Your task to perform on an android device: set default search engine in the chrome app Image 0: 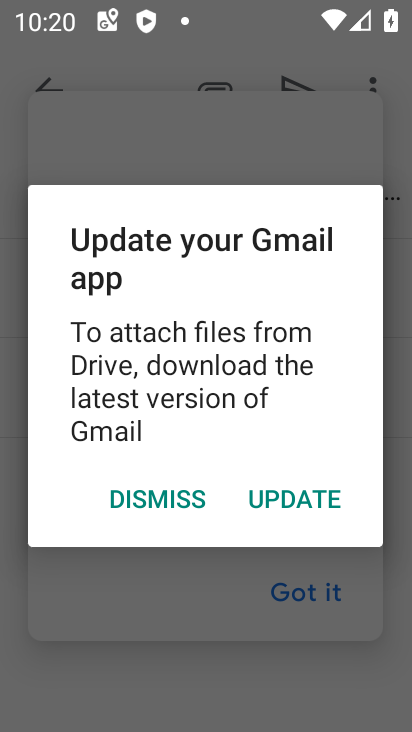
Step 0: press home button
Your task to perform on an android device: set default search engine in the chrome app Image 1: 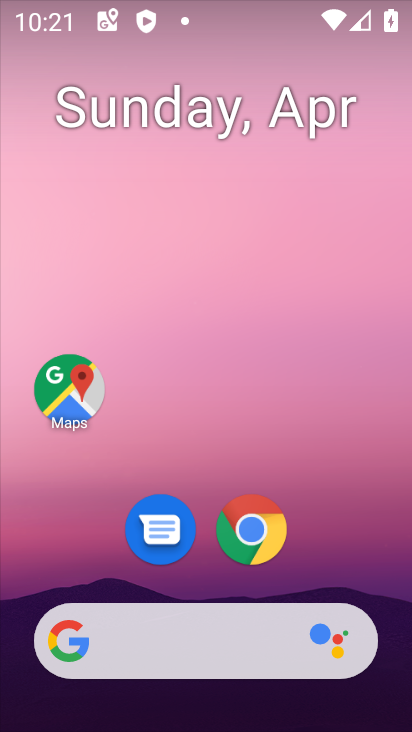
Step 1: click (226, 536)
Your task to perform on an android device: set default search engine in the chrome app Image 2: 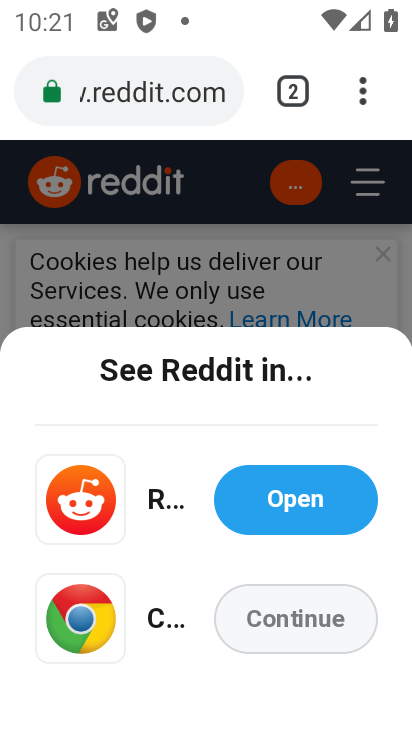
Step 2: click (362, 99)
Your task to perform on an android device: set default search engine in the chrome app Image 3: 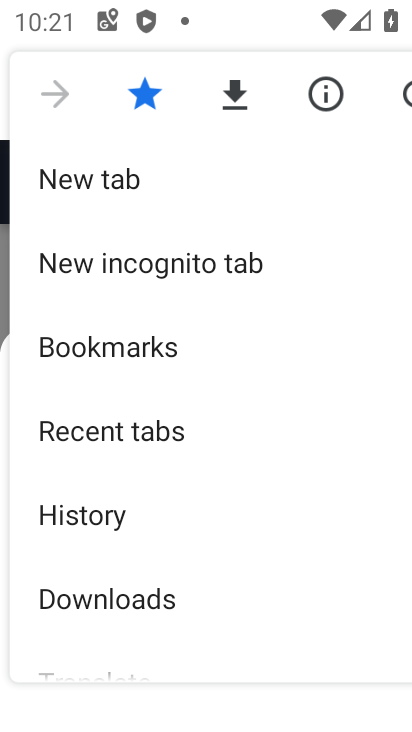
Step 3: drag from (157, 590) to (246, 211)
Your task to perform on an android device: set default search engine in the chrome app Image 4: 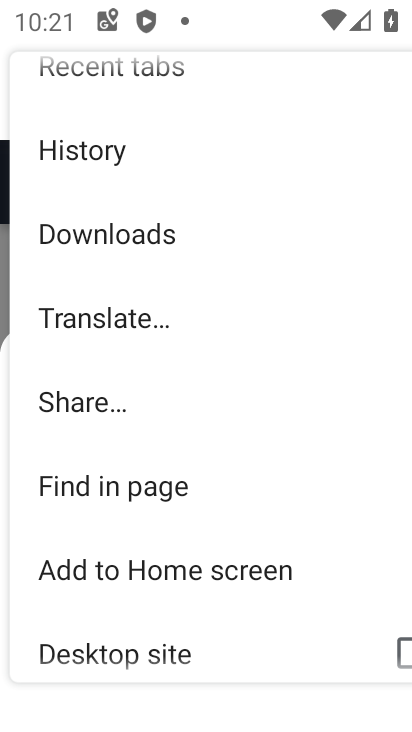
Step 4: drag from (141, 597) to (215, 176)
Your task to perform on an android device: set default search engine in the chrome app Image 5: 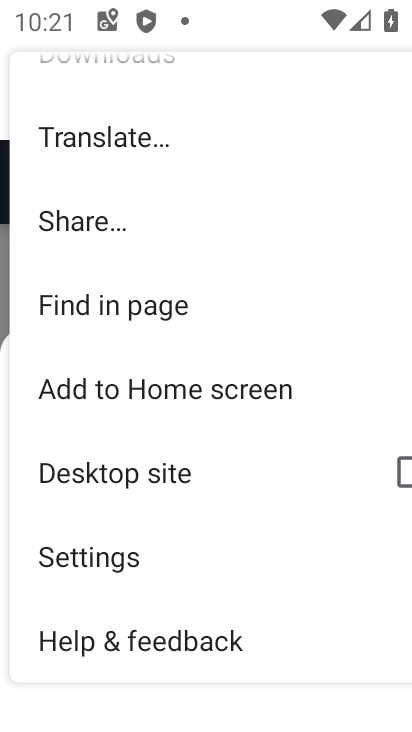
Step 5: click (104, 561)
Your task to perform on an android device: set default search engine in the chrome app Image 6: 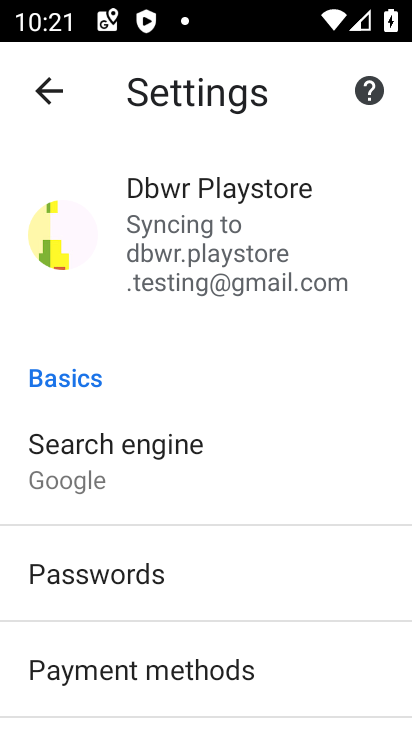
Step 6: click (119, 472)
Your task to perform on an android device: set default search engine in the chrome app Image 7: 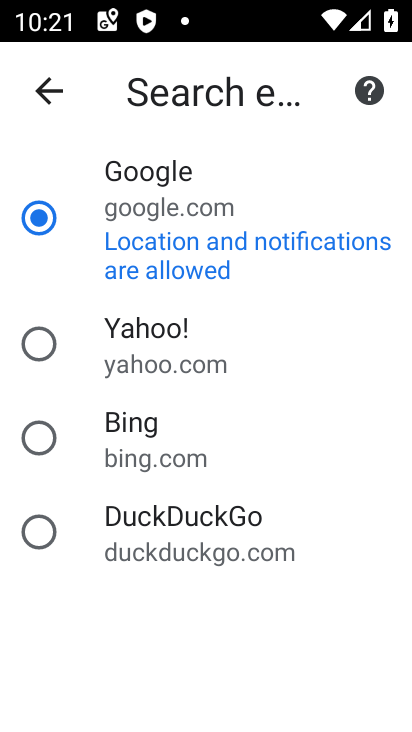
Step 7: click (42, 215)
Your task to perform on an android device: set default search engine in the chrome app Image 8: 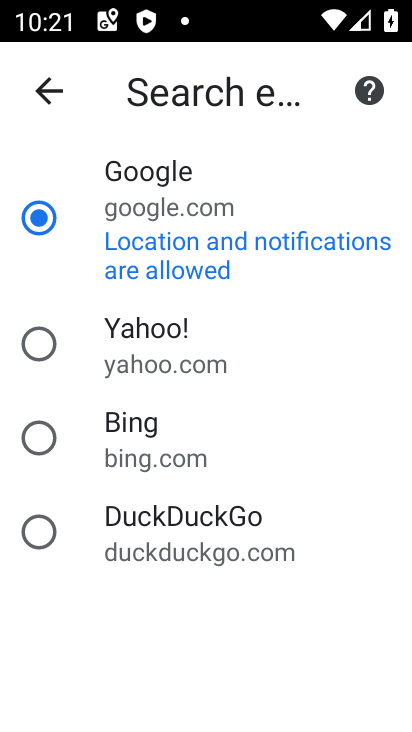
Step 8: task complete